Your task to perform on an android device: Open Chrome and go to the settings page Image 0: 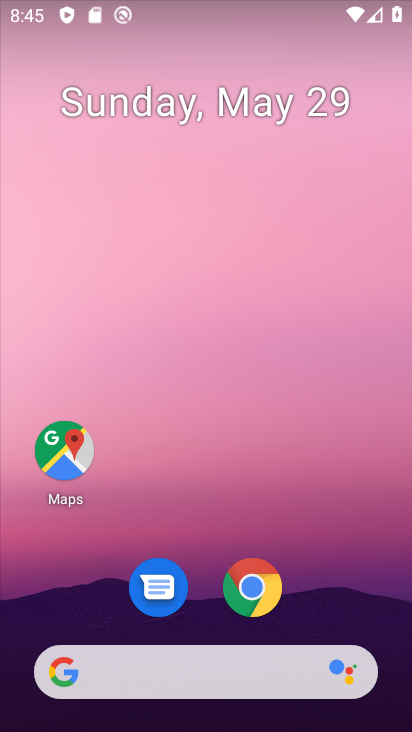
Step 0: click (254, 591)
Your task to perform on an android device: Open Chrome and go to the settings page Image 1: 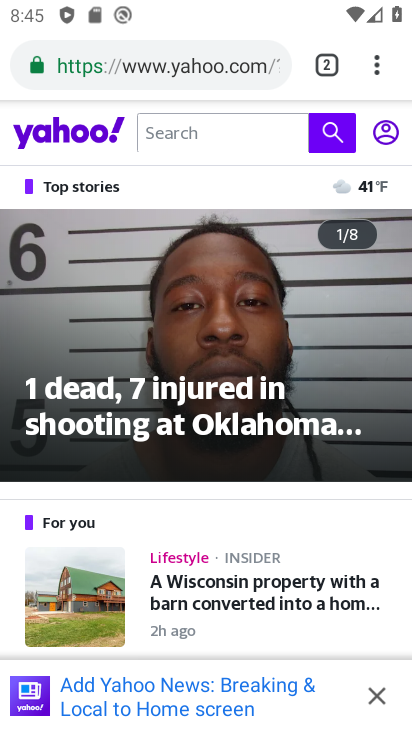
Step 1: click (323, 54)
Your task to perform on an android device: Open Chrome and go to the settings page Image 2: 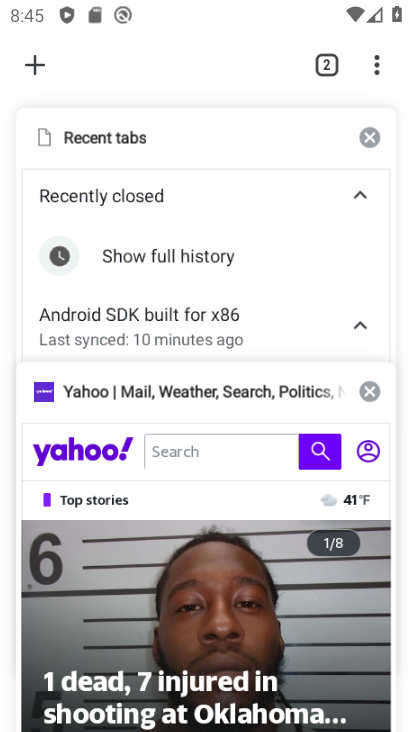
Step 2: click (22, 63)
Your task to perform on an android device: Open Chrome and go to the settings page Image 3: 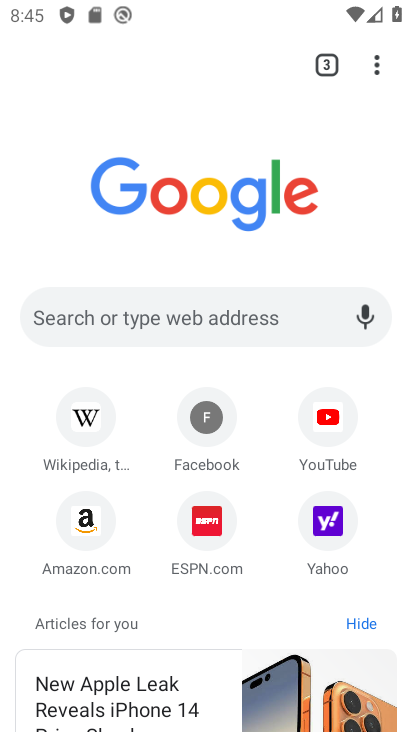
Step 3: task complete